Your task to perform on an android device: set an alarm Image 0: 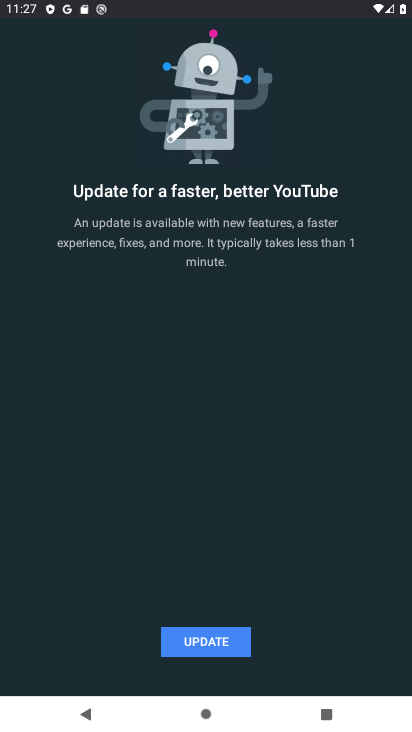
Step 0: press back button
Your task to perform on an android device: set an alarm Image 1: 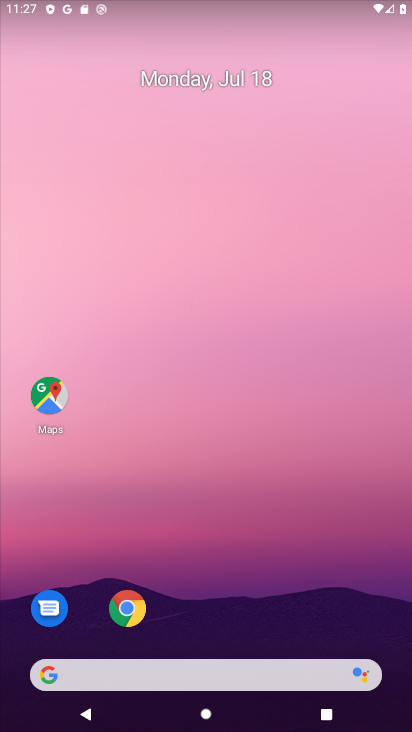
Step 1: drag from (282, 609) to (286, 259)
Your task to perform on an android device: set an alarm Image 2: 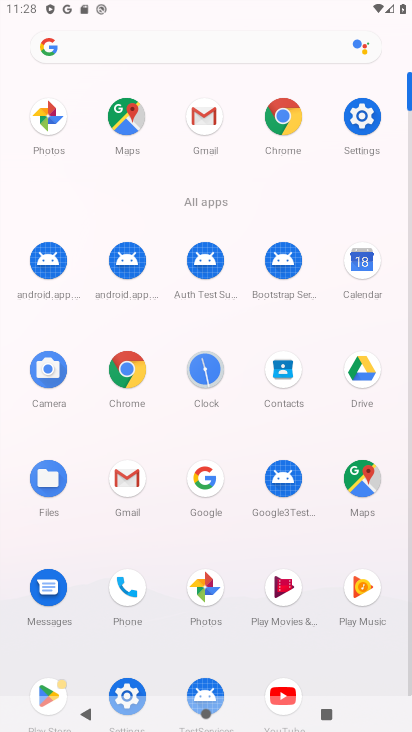
Step 2: click (197, 366)
Your task to perform on an android device: set an alarm Image 3: 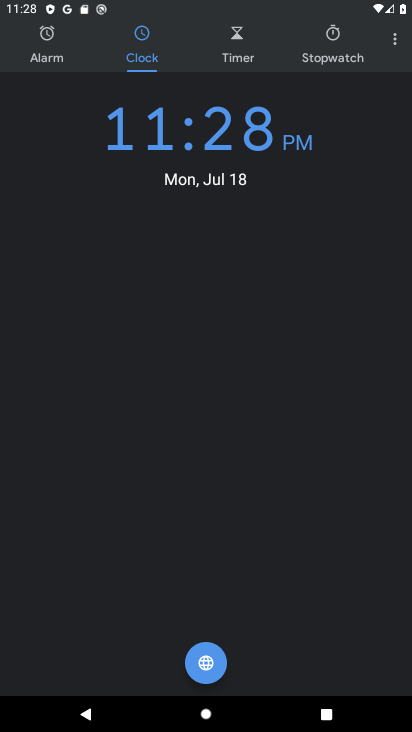
Step 3: click (66, 35)
Your task to perform on an android device: set an alarm Image 4: 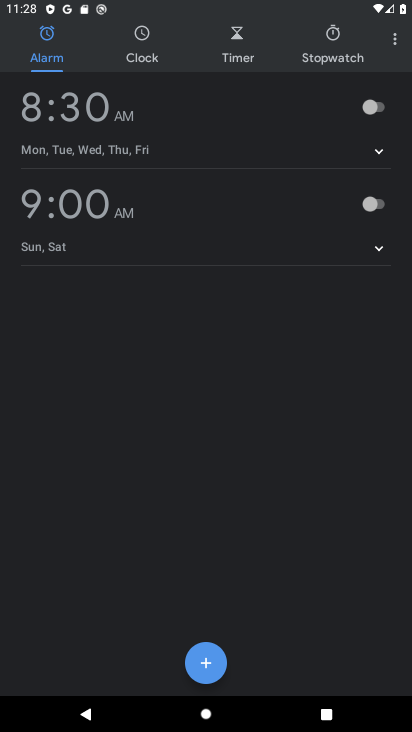
Step 4: click (209, 656)
Your task to perform on an android device: set an alarm Image 5: 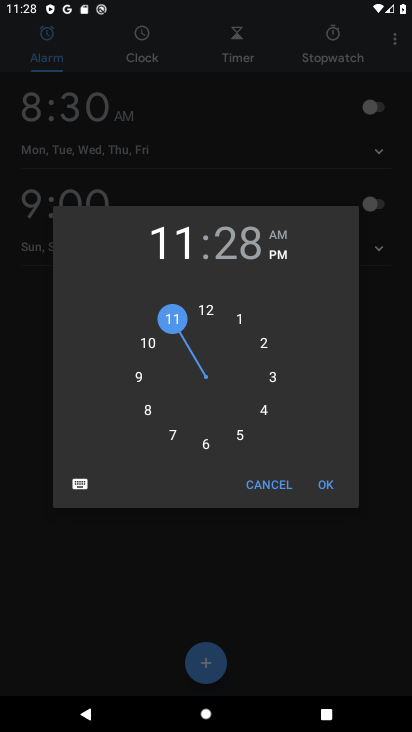
Step 5: click (327, 488)
Your task to perform on an android device: set an alarm Image 6: 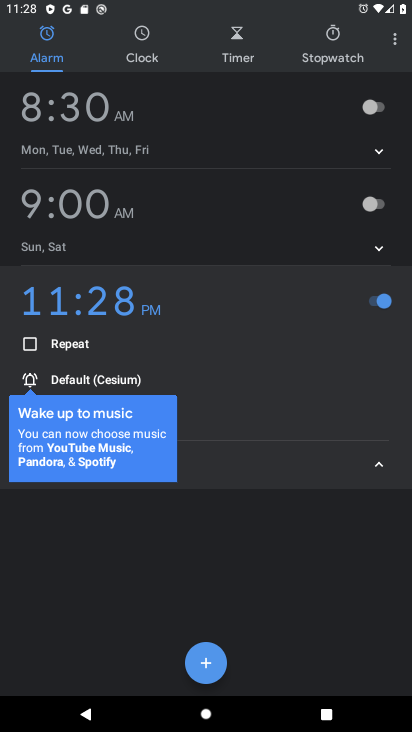
Step 6: click (373, 468)
Your task to perform on an android device: set an alarm Image 7: 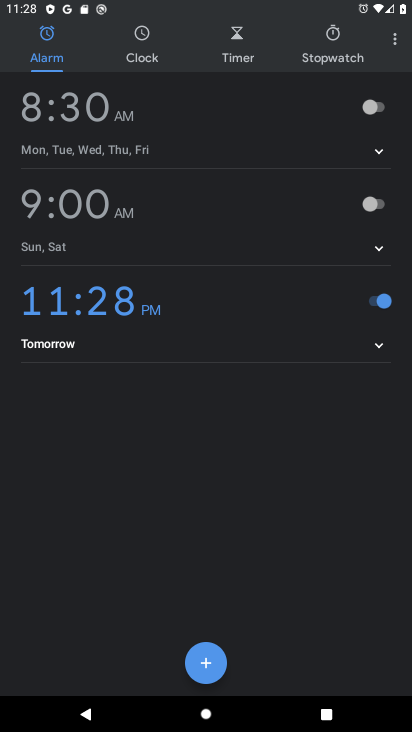
Step 7: task complete